Your task to perform on an android device: add a label to a message in the gmail app Image 0: 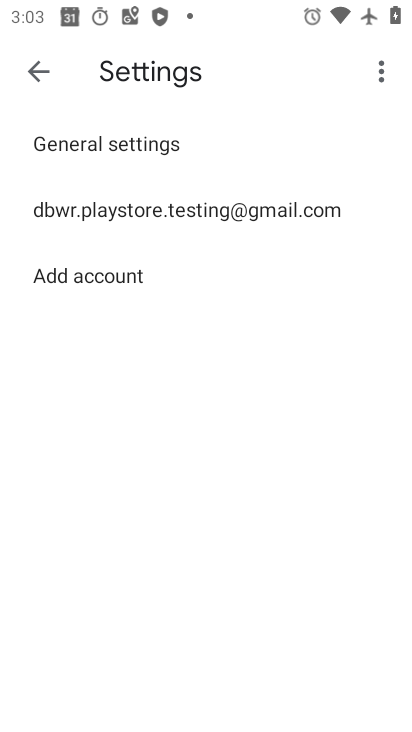
Step 0: press home button
Your task to perform on an android device: add a label to a message in the gmail app Image 1: 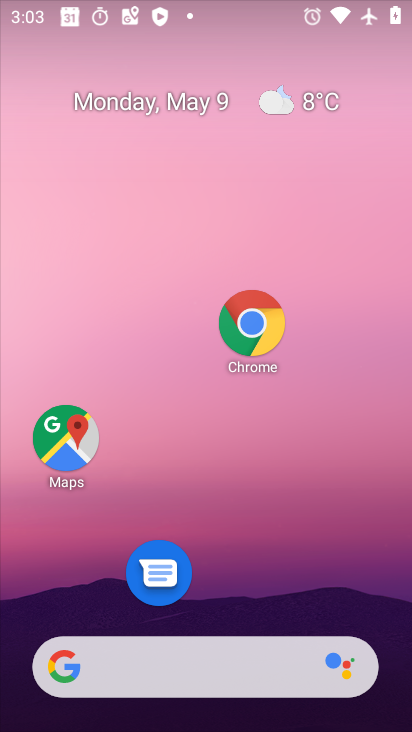
Step 1: drag from (154, 664) to (236, 152)
Your task to perform on an android device: add a label to a message in the gmail app Image 2: 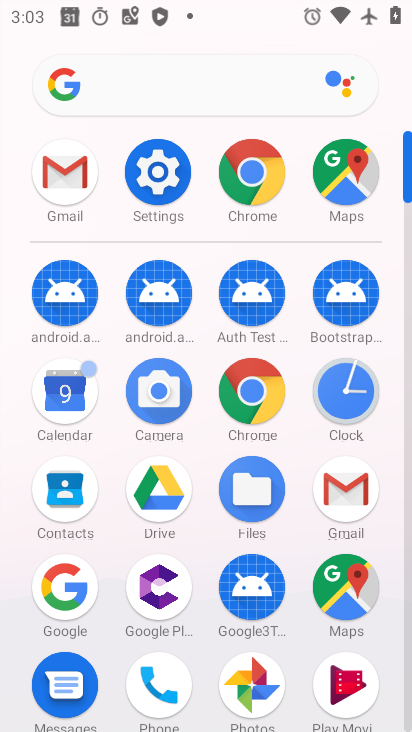
Step 2: click (343, 488)
Your task to perform on an android device: add a label to a message in the gmail app Image 3: 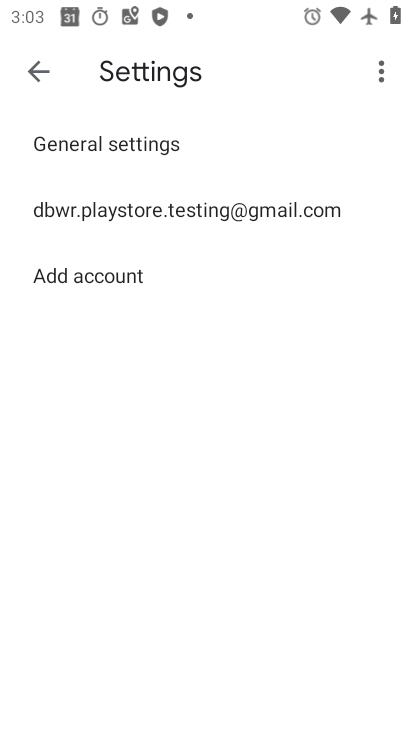
Step 3: click (30, 70)
Your task to perform on an android device: add a label to a message in the gmail app Image 4: 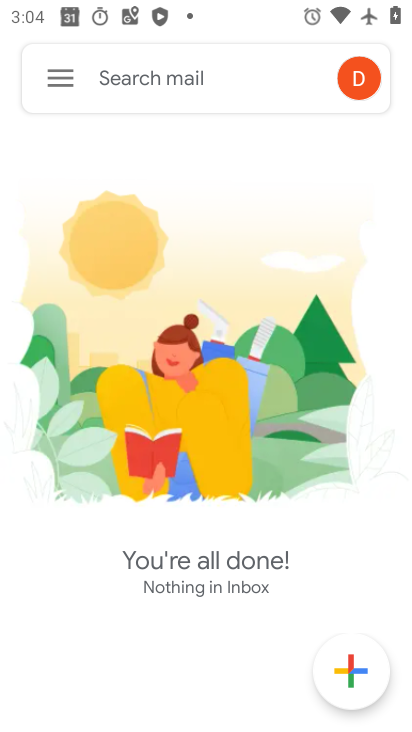
Step 4: task complete